Your task to perform on an android device: refresh tabs in the chrome app Image 0: 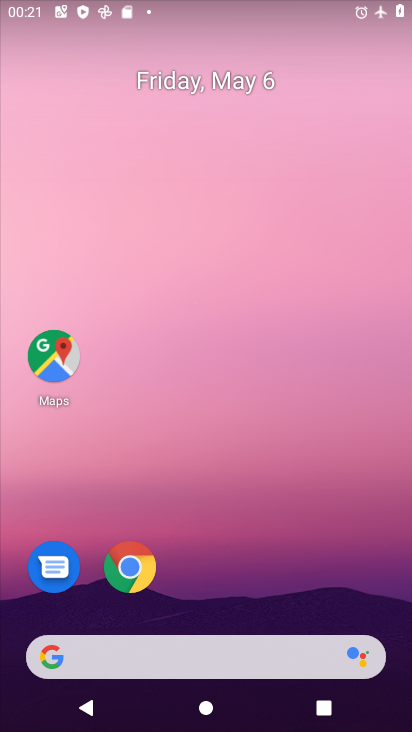
Step 0: click (134, 555)
Your task to perform on an android device: refresh tabs in the chrome app Image 1: 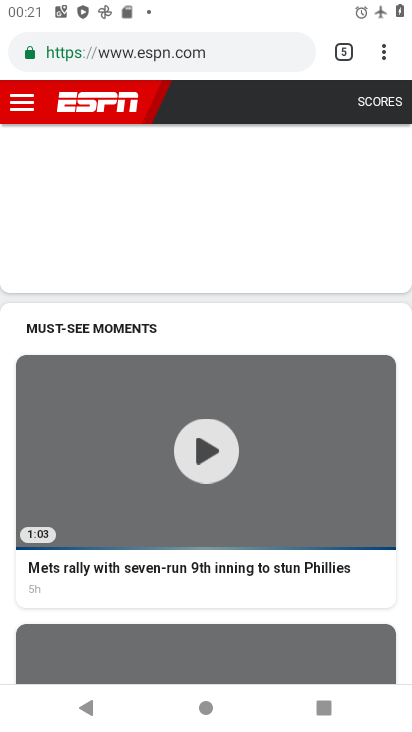
Step 1: click (386, 52)
Your task to perform on an android device: refresh tabs in the chrome app Image 2: 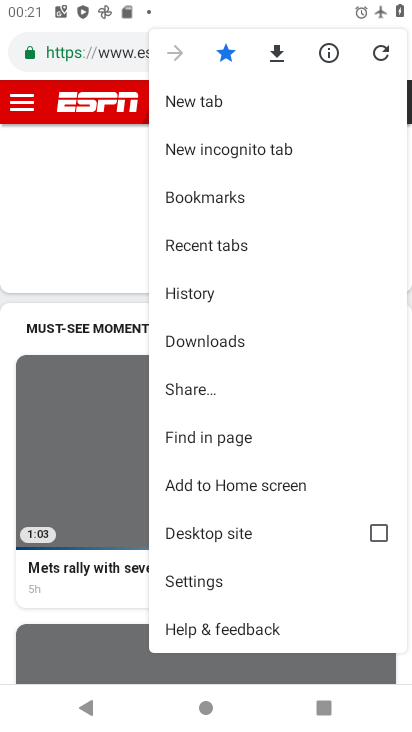
Step 2: click (378, 49)
Your task to perform on an android device: refresh tabs in the chrome app Image 3: 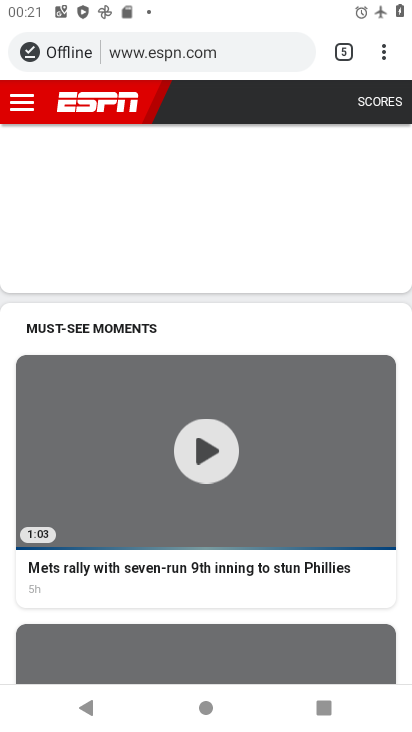
Step 3: task complete